Your task to perform on an android device: open app "Expedia: Hotels, Flights & Car" (install if not already installed) Image 0: 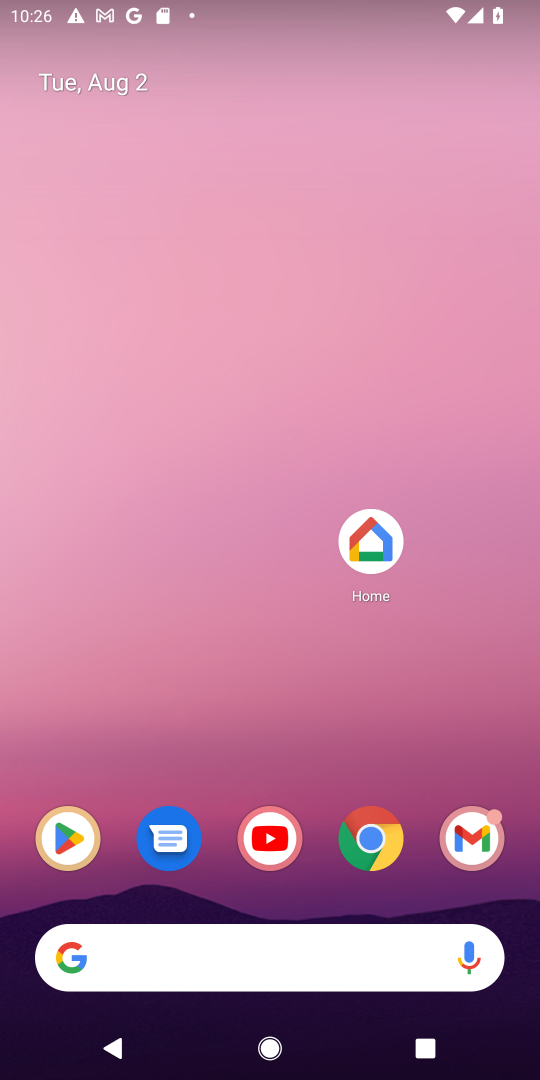
Step 0: press home button
Your task to perform on an android device: open app "Expedia: Hotels, Flights & Car" (install if not already installed) Image 1: 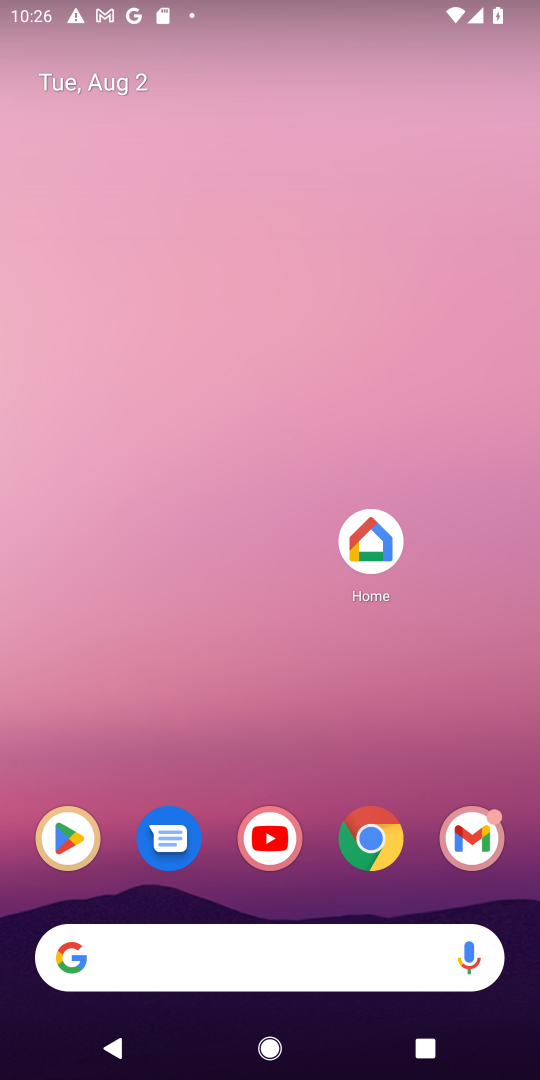
Step 1: drag from (210, 758) to (257, 76)
Your task to perform on an android device: open app "Expedia: Hotels, Flights & Car" (install if not already installed) Image 2: 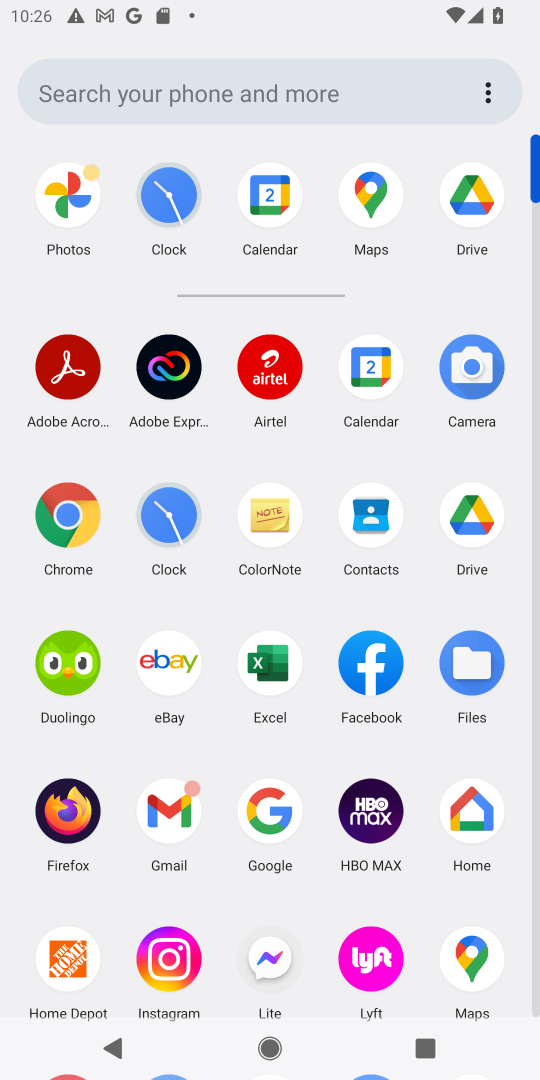
Step 2: drag from (213, 889) to (213, 613)
Your task to perform on an android device: open app "Expedia: Hotels, Flights & Car" (install if not already installed) Image 3: 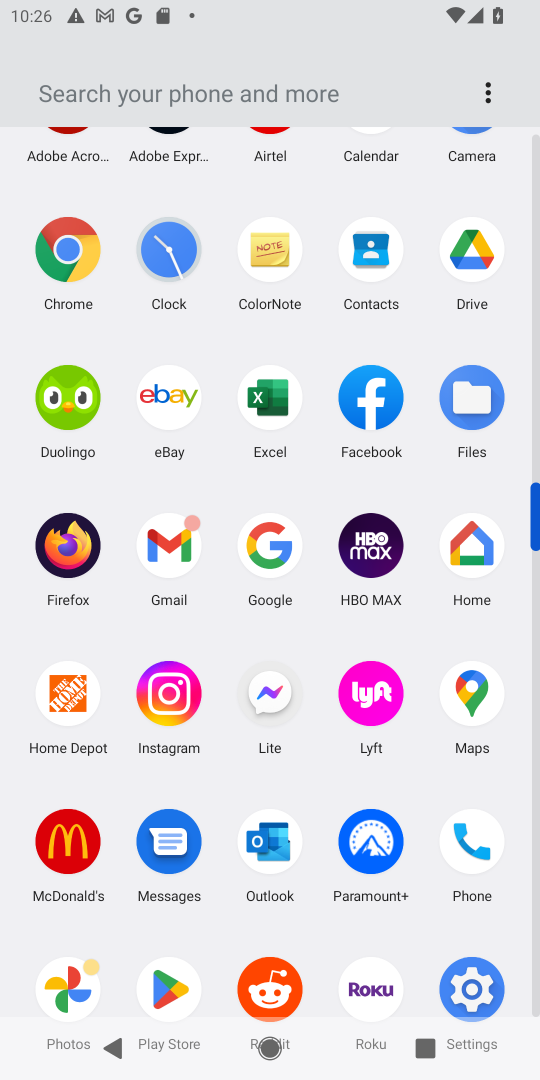
Step 3: drag from (213, 934) to (220, 662)
Your task to perform on an android device: open app "Expedia: Hotels, Flights & Car" (install if not already installed) Image 4: 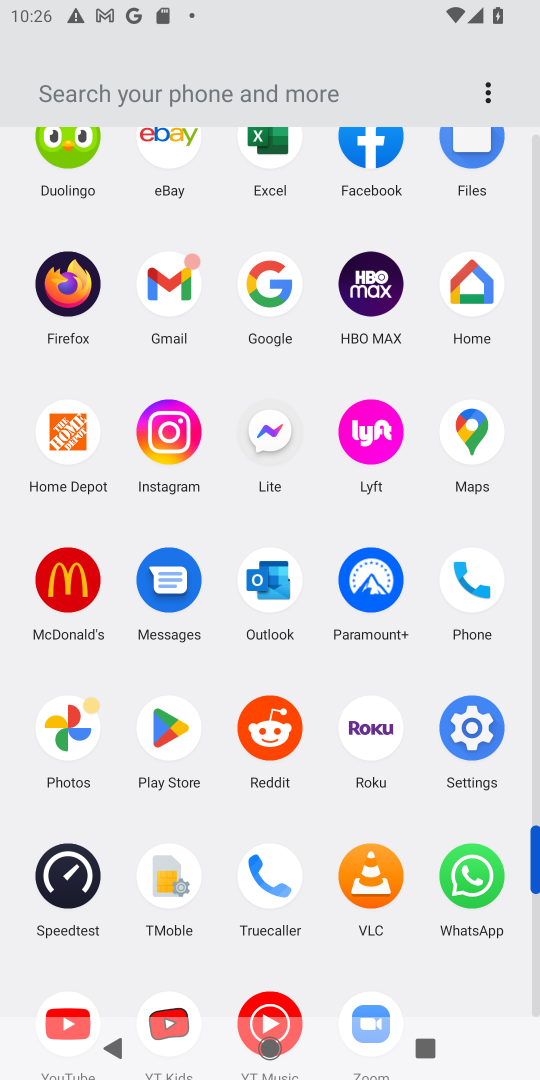
Step 4: click (162, 726)
Your task to perform on an android device: open app "Expedia: Hotels, Flights & Car" (install if not already installed) Image 5: 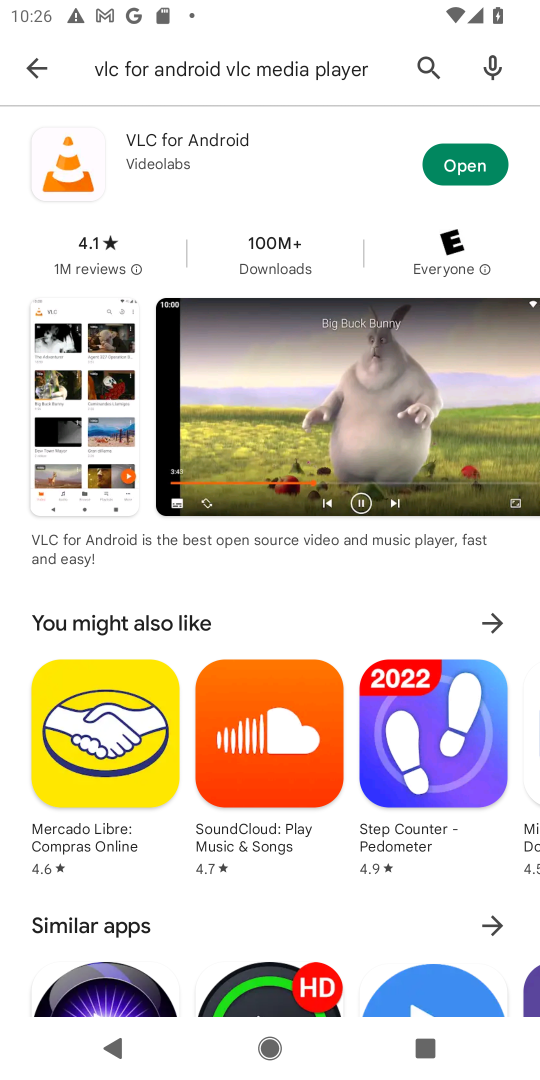
Step 5: click (426, 63)
Your task to perform on an android device: open app "Expedia: Hotels, Flights & Car" (install if not already installed) Image 6: 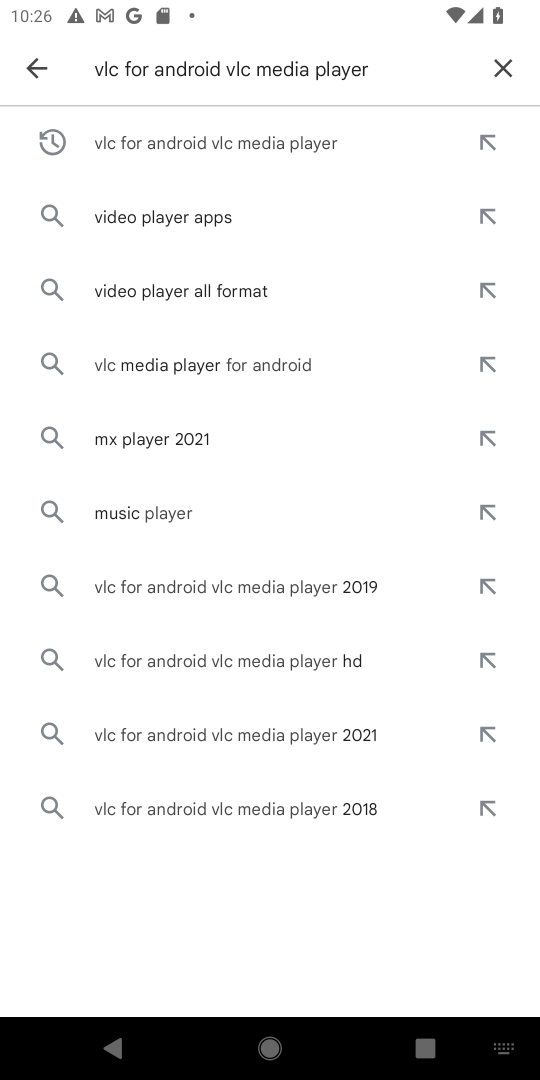
Step 6: click (517, 76)
Your task to perform on an android device: open app "Expedia: Hotels, Flights & Car" (install if not already installed) Image 7: 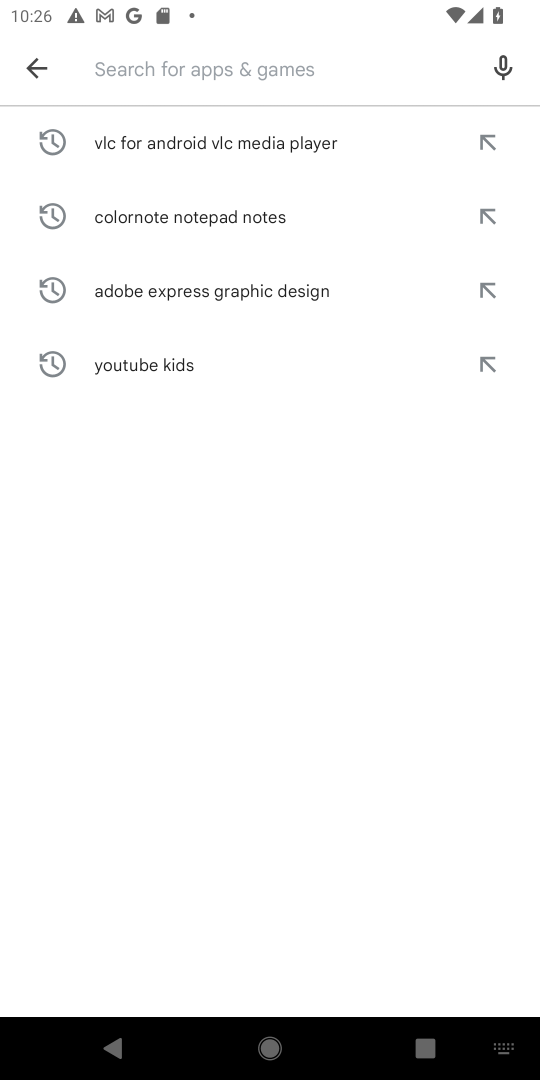
Step 7: click (396, 81)
Your task to perform on an android device: open app "Expedia: Hotels, Flights & Car" (install if not already installed) Image 8: 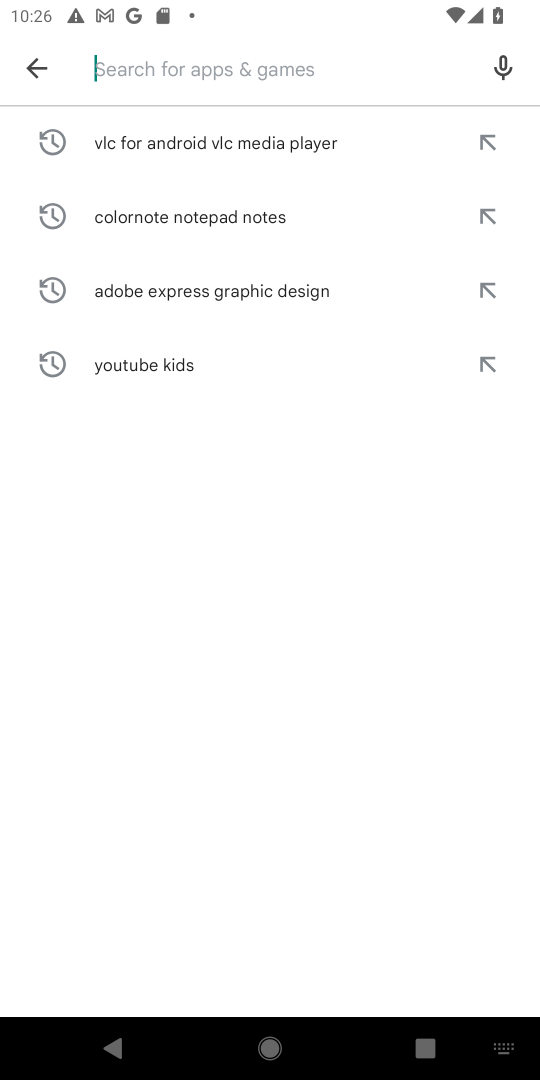
Step 8: type "expedia hotels flights car"
Your task to perform on an android device: open app "Expedia: Hotels, Flights & Car" (install if not already installed) Image 9: 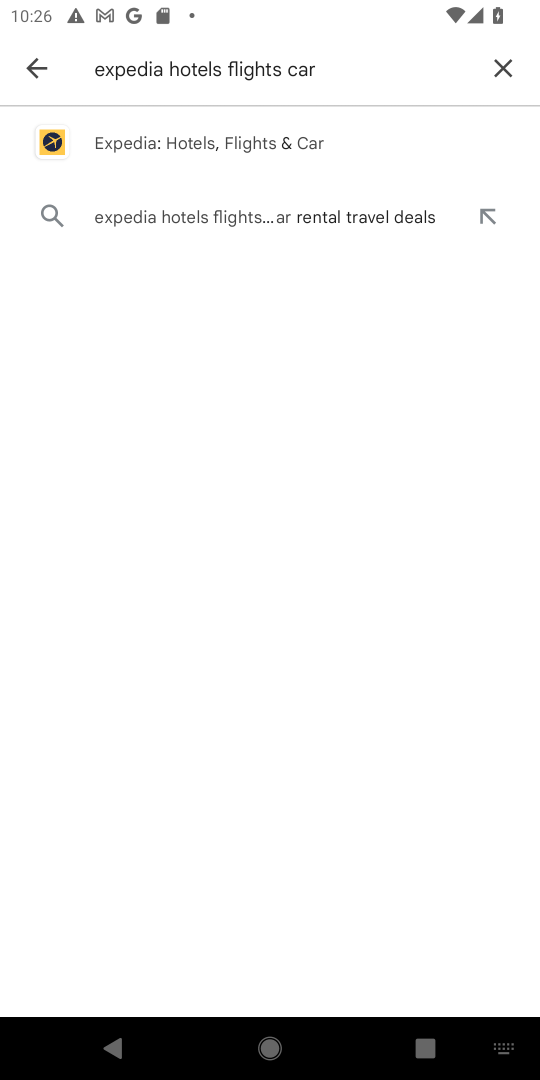
Step 9: click (270, 144)
Your task to perform on an android device: open app "Expedia: Hotels, Flights & Car" (install if not already installed) Image 10: 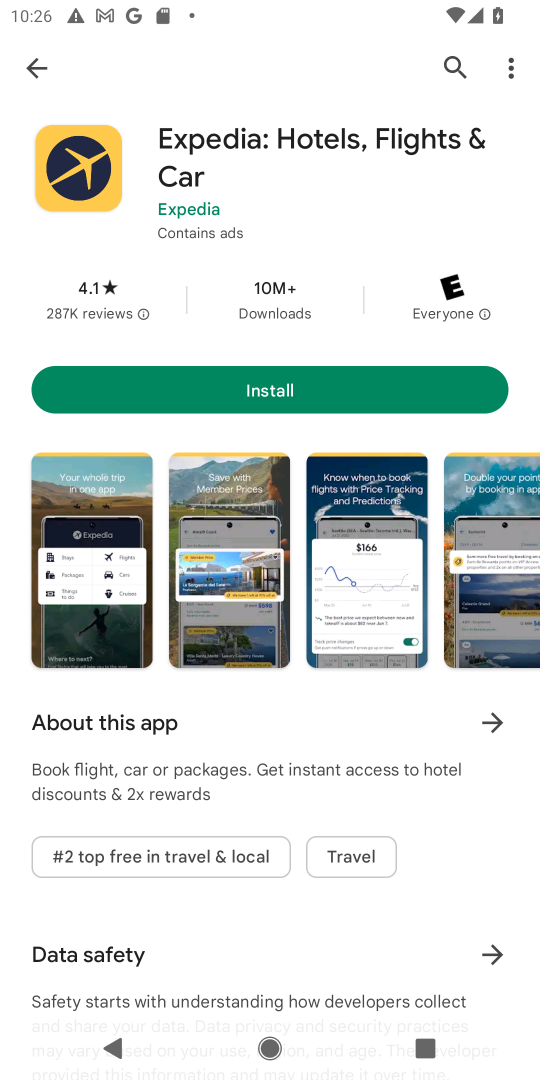
Step 10: click (296, 385)
Your task to perform on an android device: open app "Expedia: Hotels, Flights & Car" (install if not already installed) Image 11: 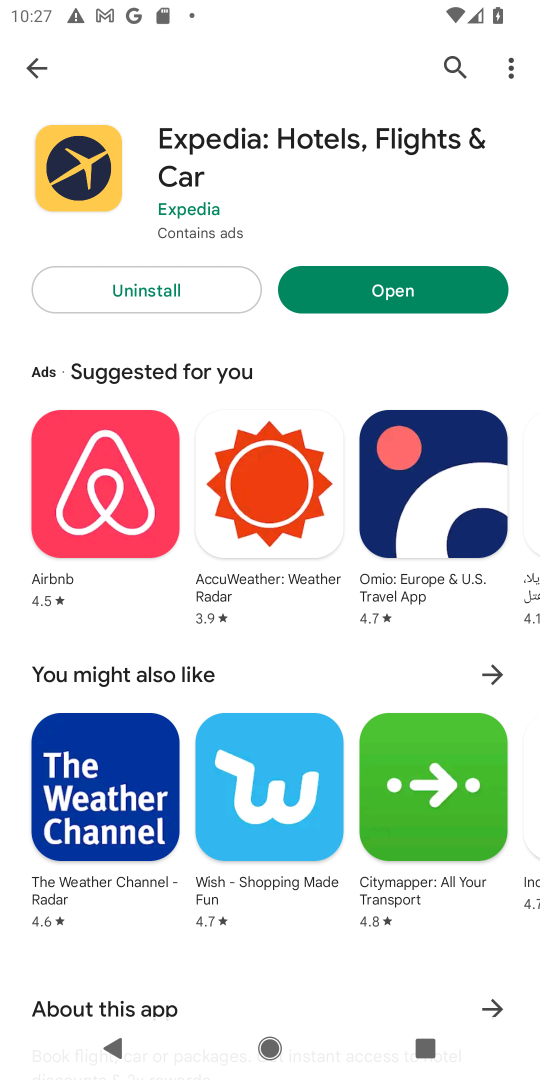
Step 11: click (442, 288)
Your task to perform on an android device: open app "Expedia: Hotels, Flights & Car" (install if not already installed) Image 12: 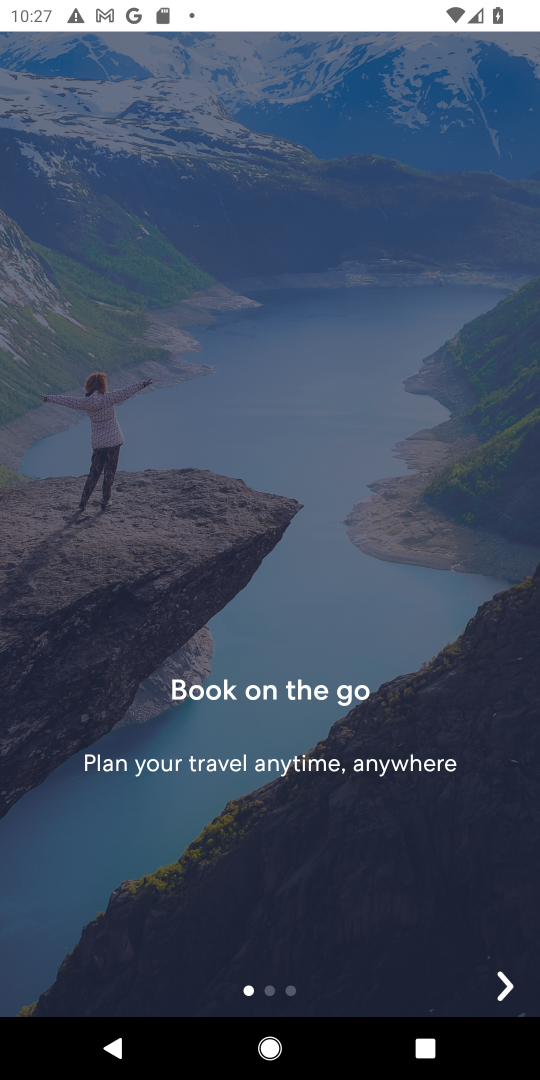
Step 12: task complete